Your task to perform on an android device: Find coffee shops on Maps Image 0: 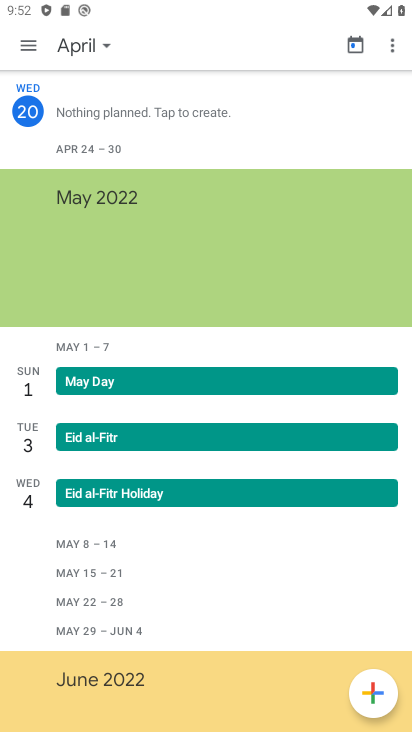
Step 0: press home button
Your task to perform on an android device: Find coffee shops on Maps Image 1: 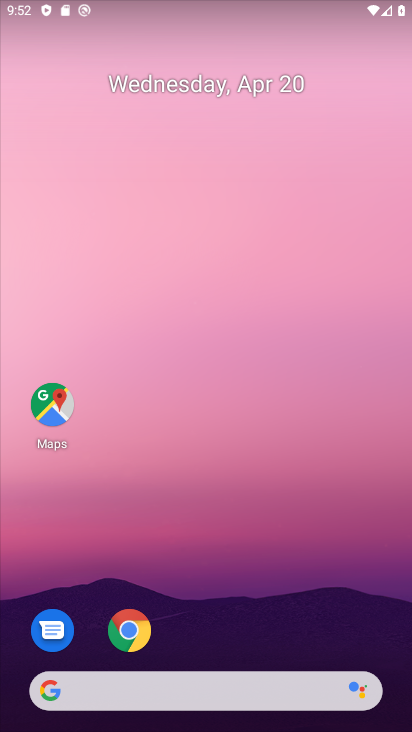
Step 1: drag from (314, 411) to (341, 1)
Your task to perform on an android device: Find coffee shops on Maps Image 2: 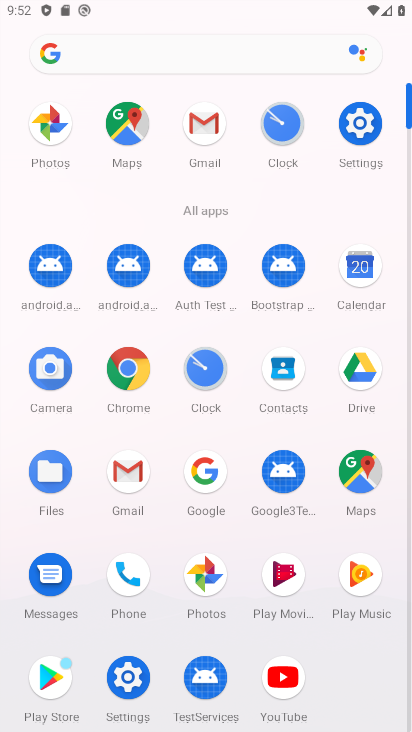
Step 2: click (131, 131)
Your task to perform on an android device: Find coffee shops on Maps Image 3: 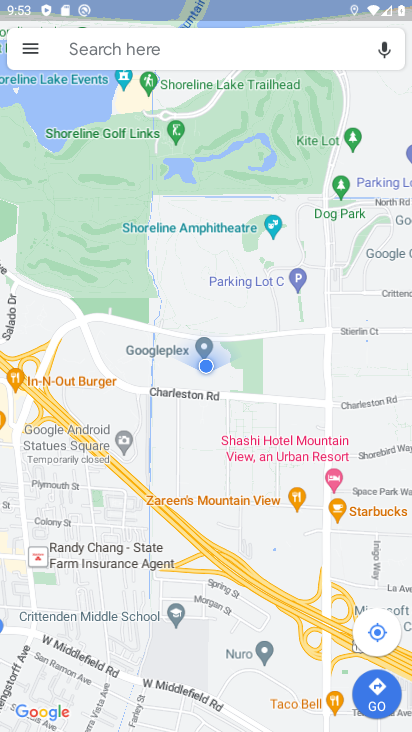
Step 3: click (156, 43)
Your task to perform on an android device: Find coffee shops on Maps Image 4: 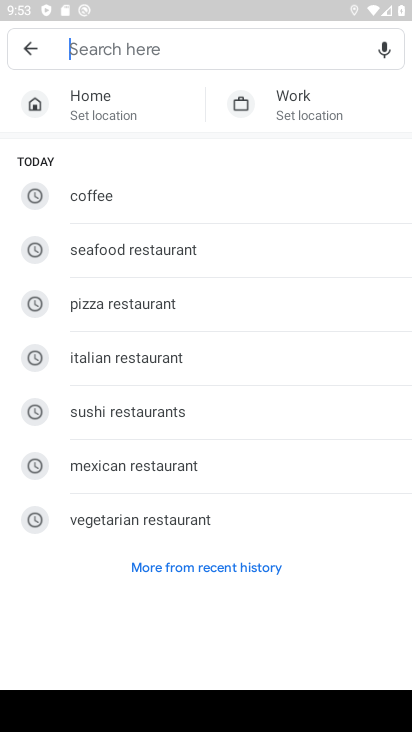
Step 4: click (88, 190)
Your task to perform on an android device: Find coffee shops on Maps Image 5: 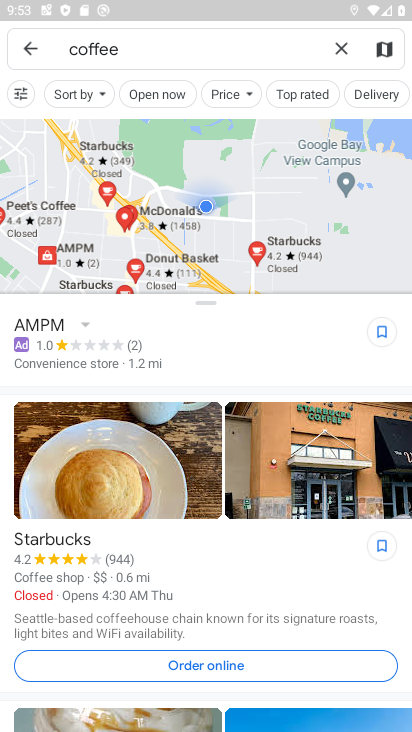
Step 5: task complete